Your task to perform on an android device: stop showing notifications on the lock screen Image 0: 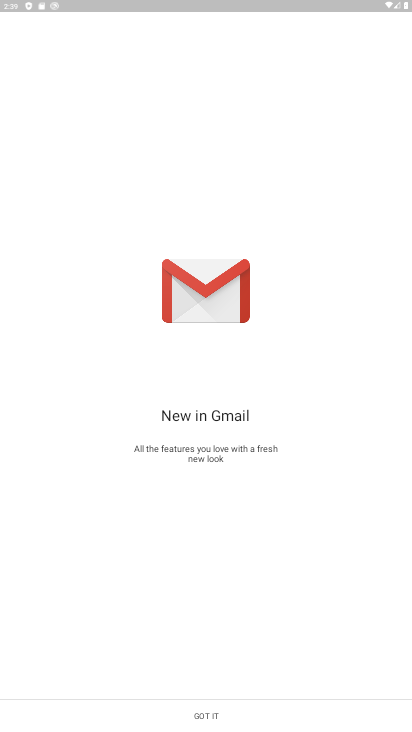
Step 0: press home button
Your task to perform on an android device: stop showing notifications on the lock screen Image 1: 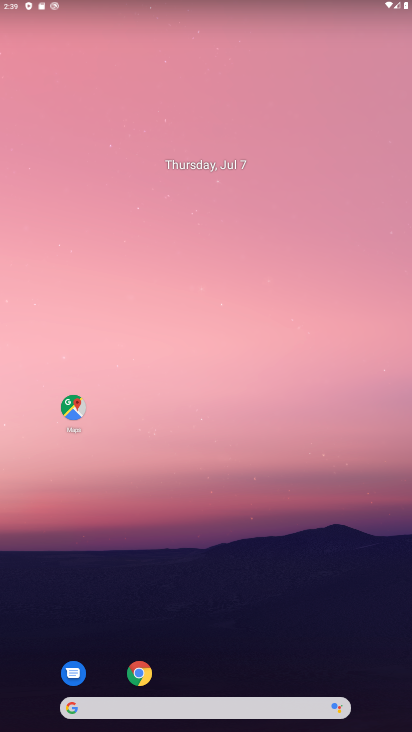
Step 1: drag from (191, 624) to (224, 154)
Your task to perform on an android device: stop showing notifications on the lock screen Image 2: 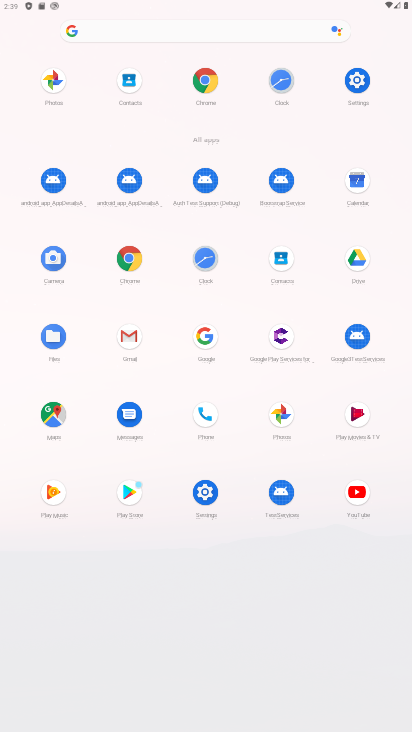
Step 2: click (205, 497)
Your task to perform on an android device: stop showing notifications on the lock screen Image 3: 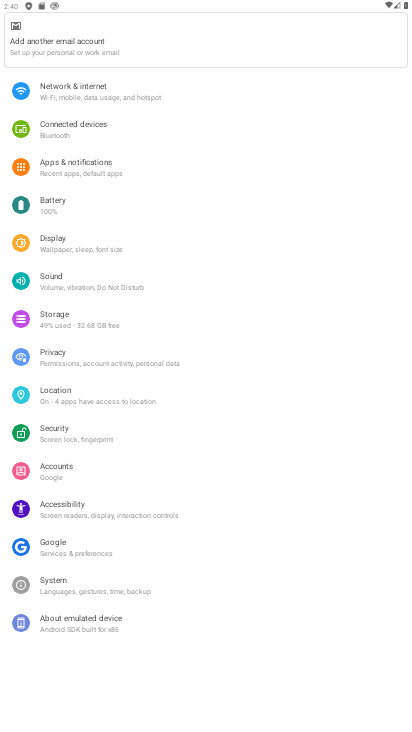
Step 3: click (94, 167)
Your task to perform on an android device: stop showing notifications on the lock screen Image 4: 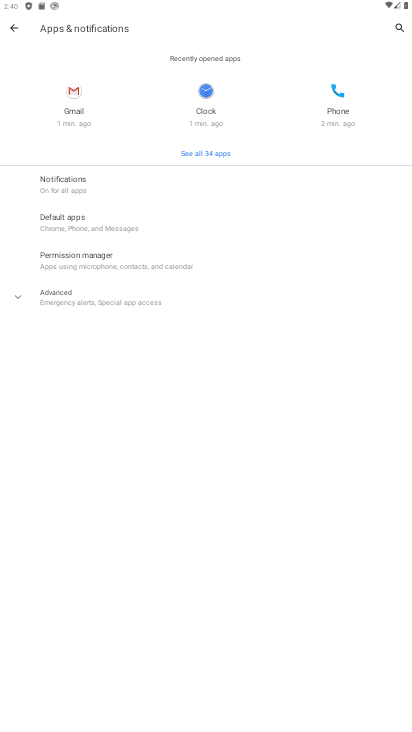
Step 4: click (89, 189)
Your task to perform on an android device: stop showing notifications on the lock screen Image 5: 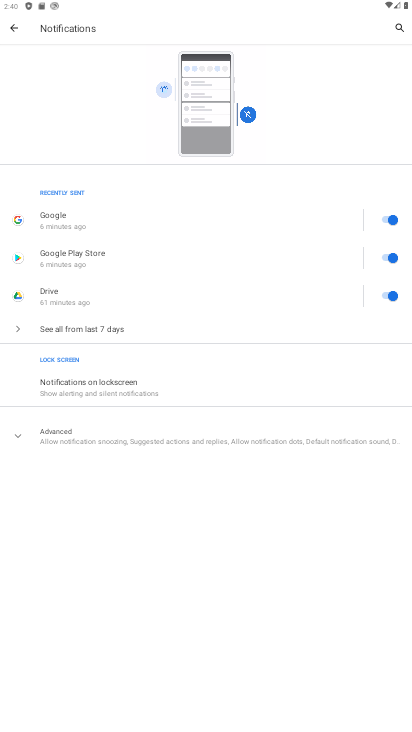
Step 5: click (102, 390)
Your task to perform on an android device: stop showing notifications on the lock screen Image 6: 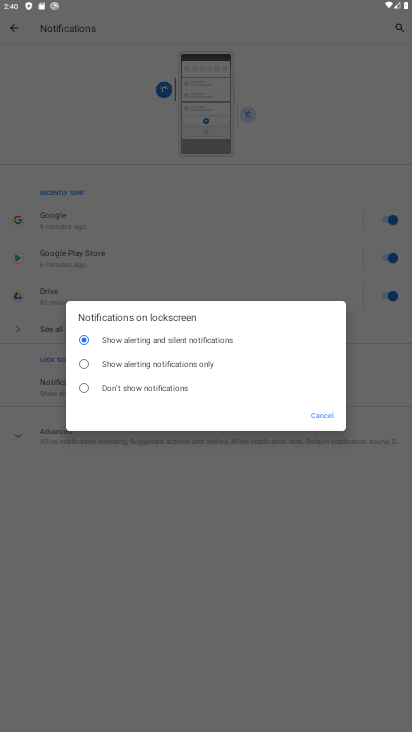
Step 6: click (104, 390)
Your task to perform on an android device: stop showing notifications on the lock screen Image 7: 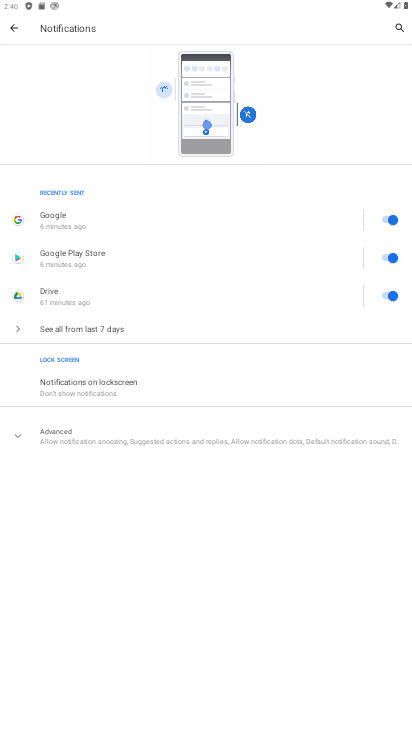
Step 7: task complete